Your task to perform on an android device: create a new album in the google photos Image 0: 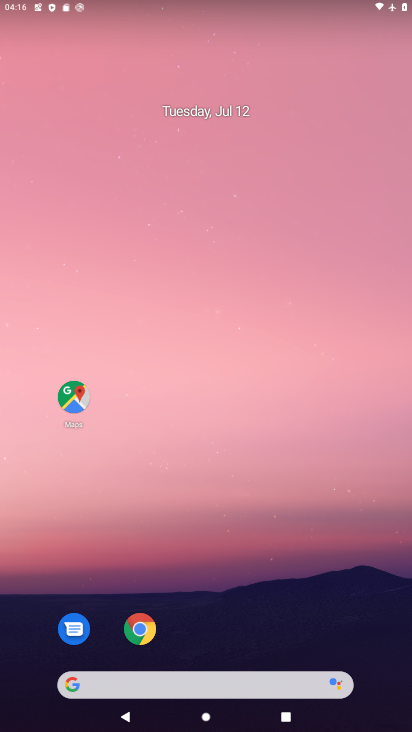
Step 0: drag from (309, 478) to (262, 68)
Your task to perform on an android device: create a new album in the google photos Image 1: 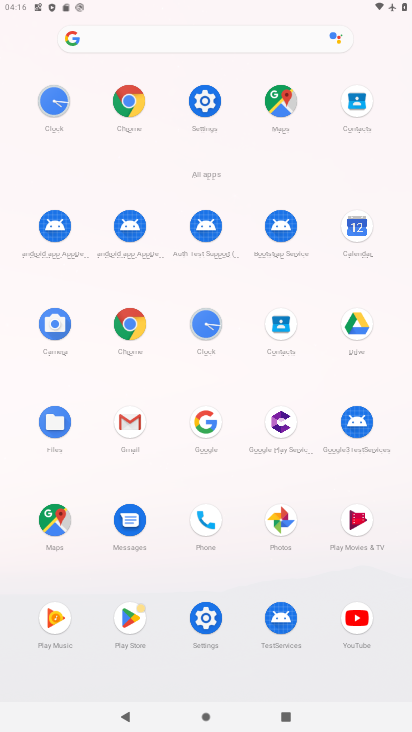
Step 1: click (279, 516)
Your task to perform on an android device: create a new album in the google photos Image 2: 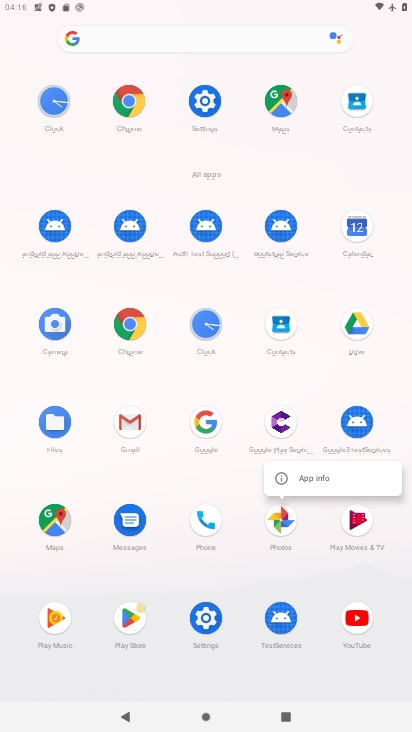
Step 2: click (282, 524)
Your task to perform on an android device: create a new album in the google photos Image 3: 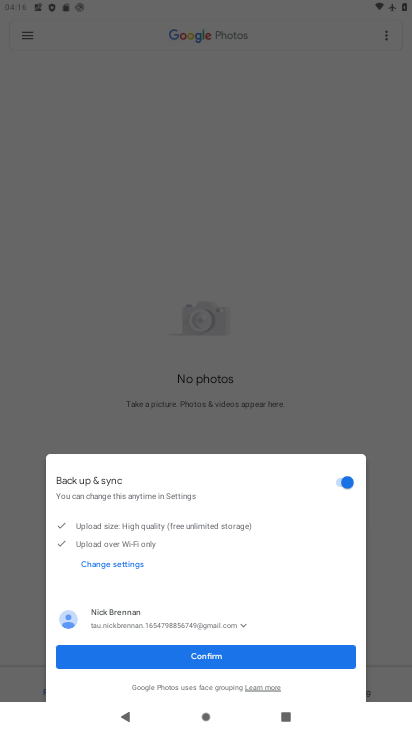
Step 3: click (254, 662)
Your task to perform on an android device: create a new album in the google photos Image 4: 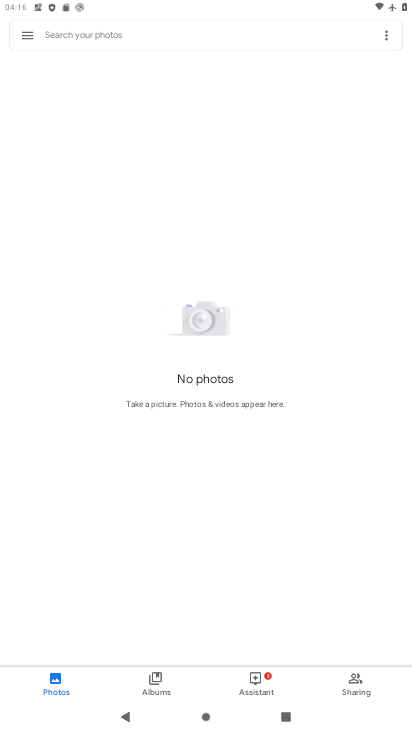
Step 4: click (152, 682)
Your task to perform on an android device: create a new album in the google photos Image 5: 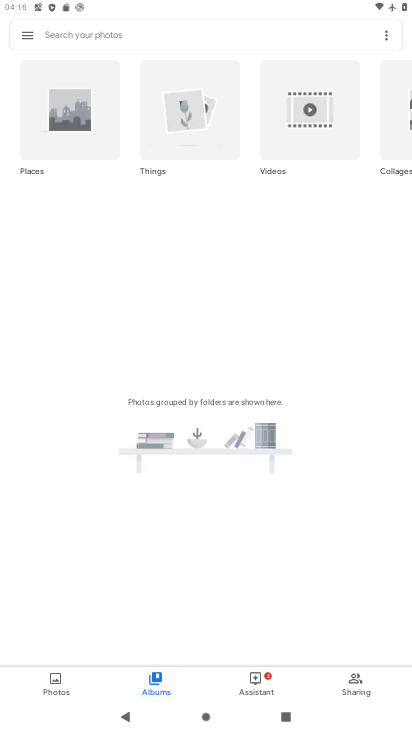
Step 5: click (273, 431)
Your task to perform on an android device: create a new album in the google photos Image 6: 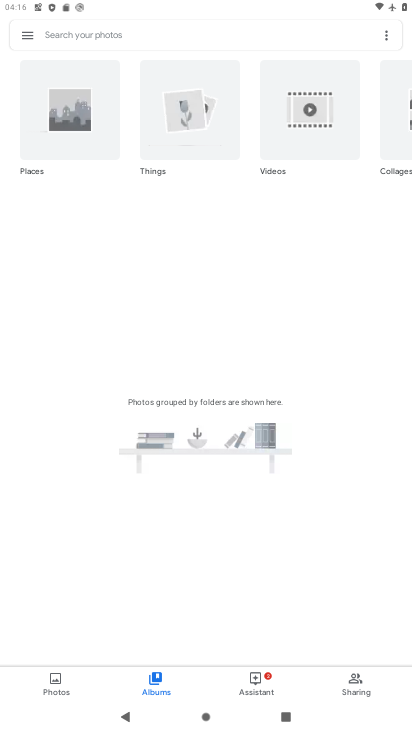
Step 6: click (227, 417)
Your task to perform on an android device: create a new album in the google photos Image 7: 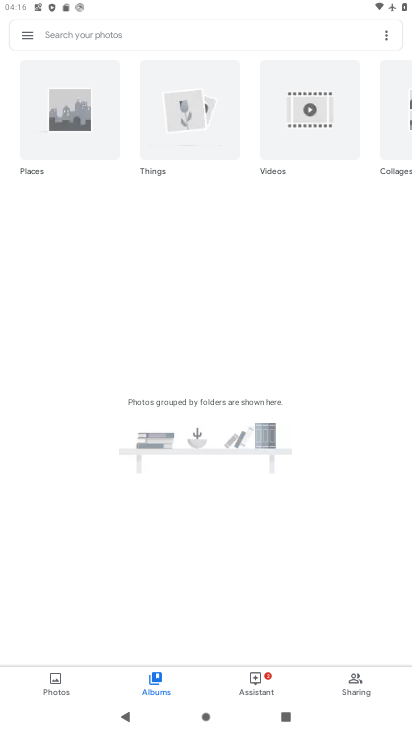
Step 7: click (153, 258)
Your task to perform on an android device: create a new album in the google photos Image 8: 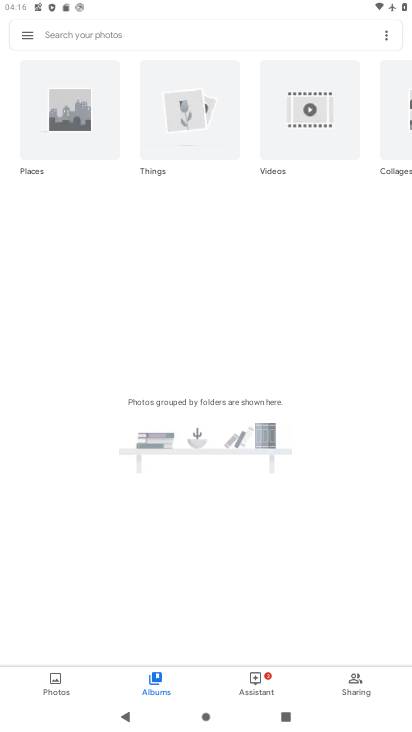
Step 8: click (389, 32)
Your task to perform on an android device: create a new album in the google photos Image 9: 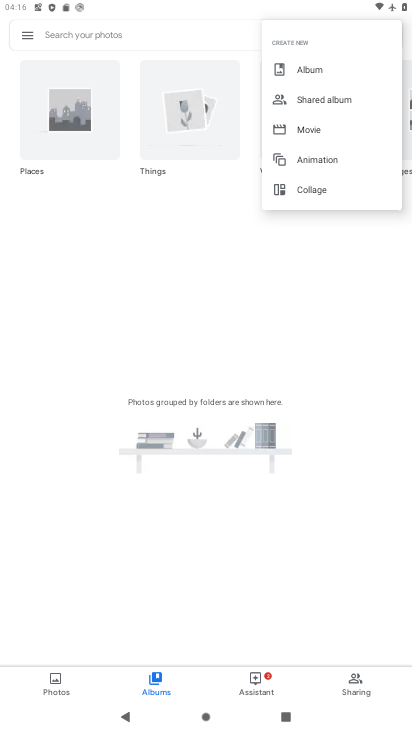
Step 9: click (321, 69)
Your task to perform on an android device: create a new album in the google photos Image 10: 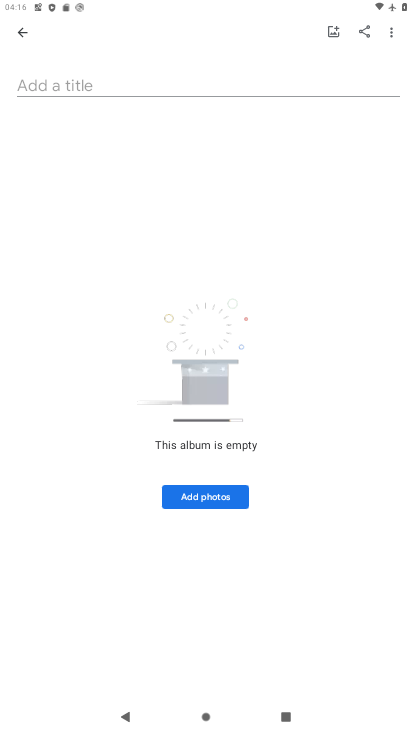
Step 10: click (152, 89)
Your task to perform on an android device: create a new album in the google photos Image 11: 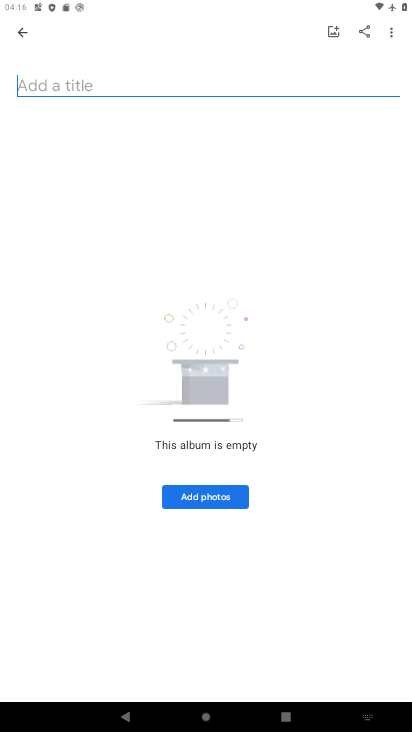
Step 11: type "sanias"
Your task to perform on an android device: create a new album in the google photos Image 12: 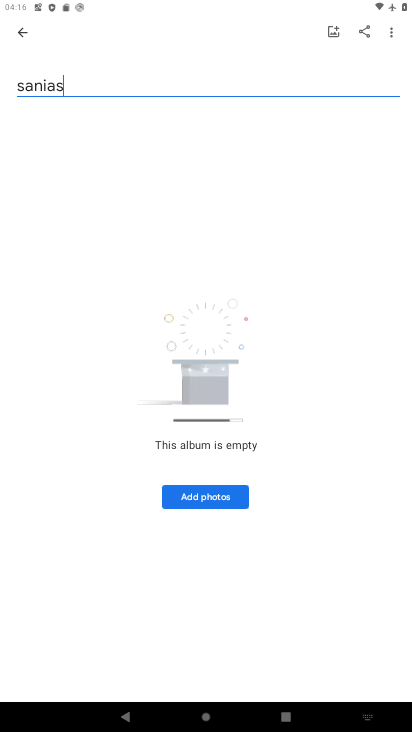
Step 12: press enter
Your task to perform on an android device: create a new album in the google photos Image 13: 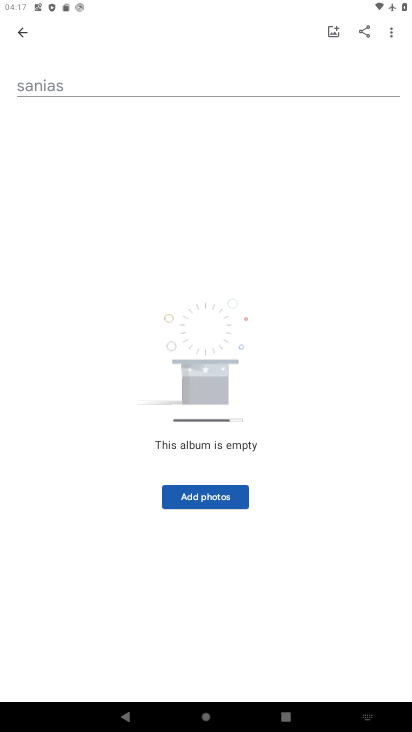
Step 13: press enter
Your task to perform on an android device: create a new album in the google photos Image 14: 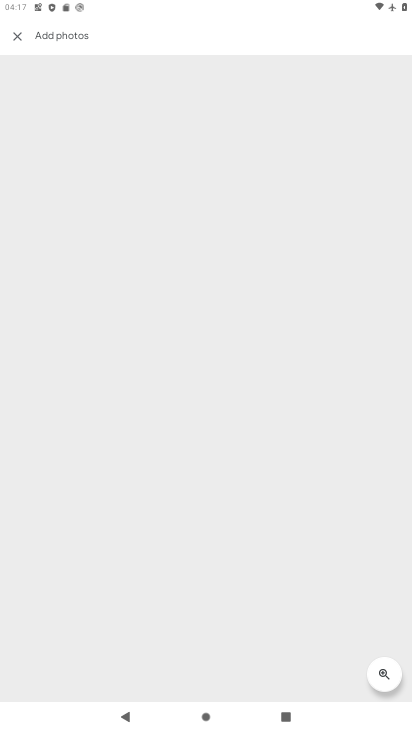
Step 14: click (18, 33)
Your task to perform on an android device: create a new album in the google photos Image 15: 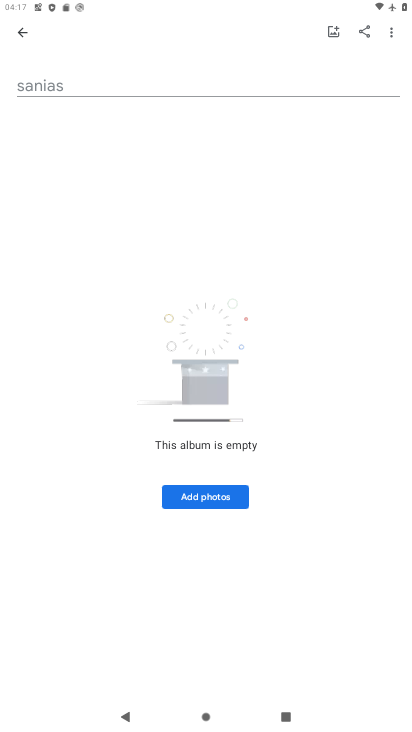
Step 15: click (361, 222)
Your task to perform on an android device: create a new album in the google photos Image 16: 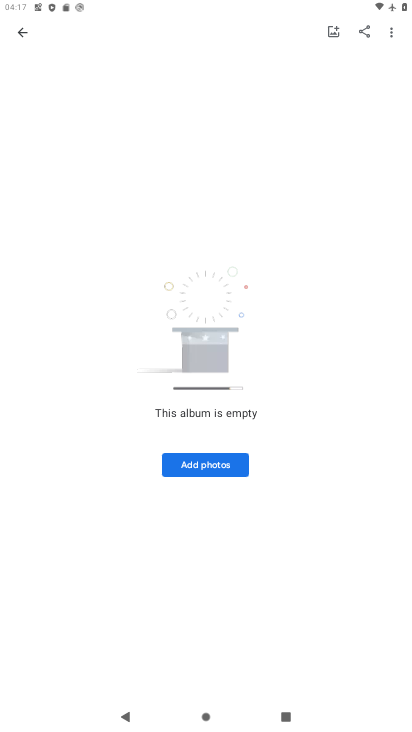
Step 16: click (396, 26)
Your task to perform on an android device: create a new album in the google photos Image 17: 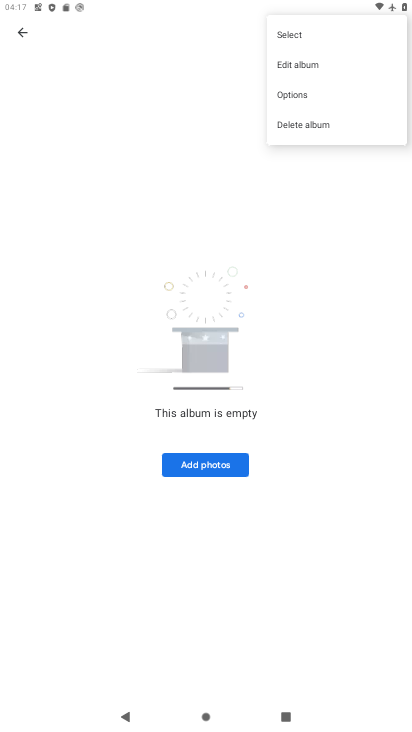
Step 17: click (366, 22)
Your task to perform on an android device: create a new album in the google photos Image 18: 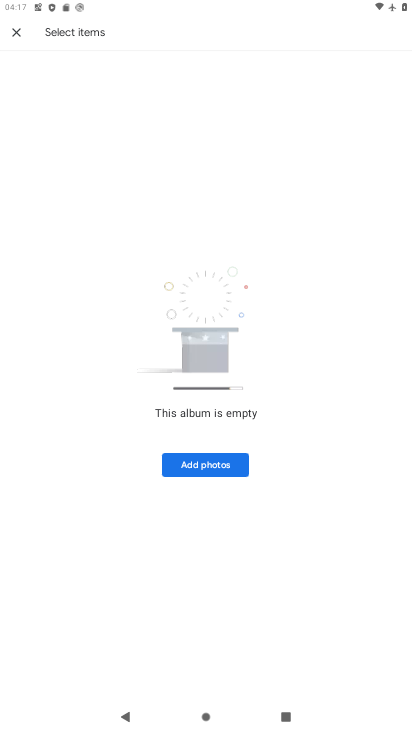
Step 18: click (363, 133)
Your task to perform on an android device: create a new album in the google photos Image 19: 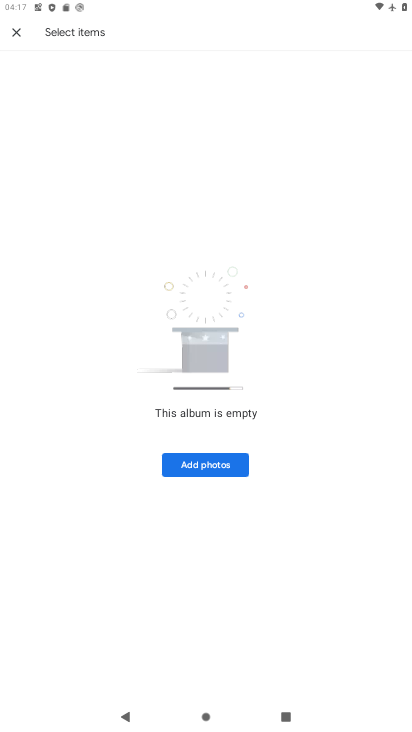
Step 19: click (18, 37)
Your task to perform on an android device: create a new album in the google photos Image 20: 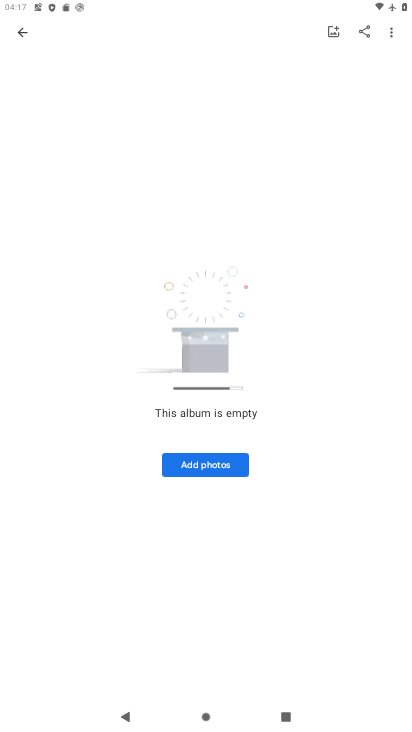
Step 20: click (396, 29)
Your task to perform on an android device: create a new album in the google photos Image 21: 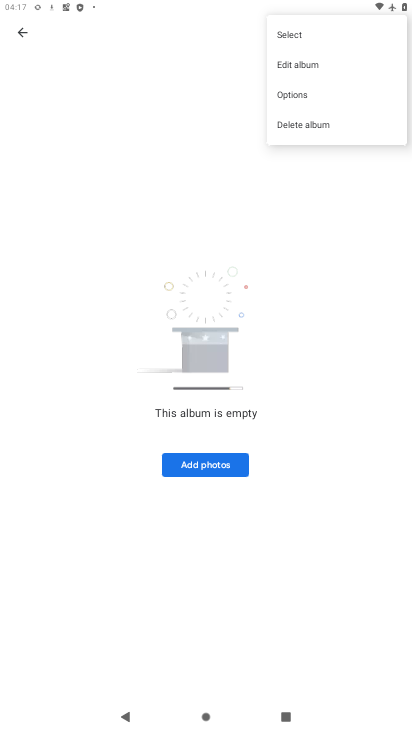
Step 21: click (153, 81)
Your task to perform on an android device: create a new album in the google photos Image 22: 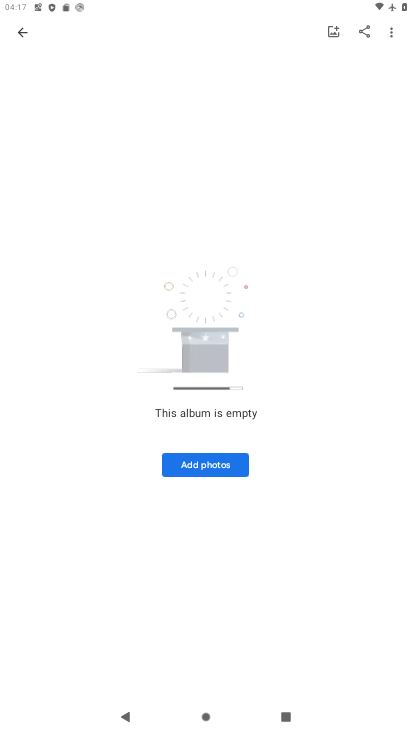
Step 22: click (25, 31)
Your task to perform on an android device: create a new album in the google photos Image 23: 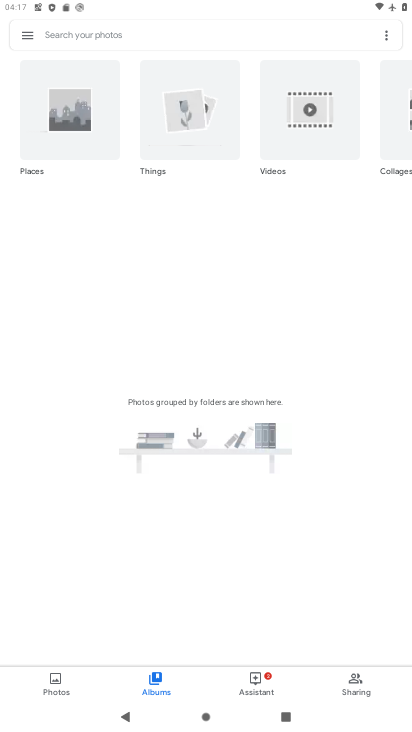
Step 23: task complete